Your task to perform on an android device: Show me popular games on the Play Store Image 0: 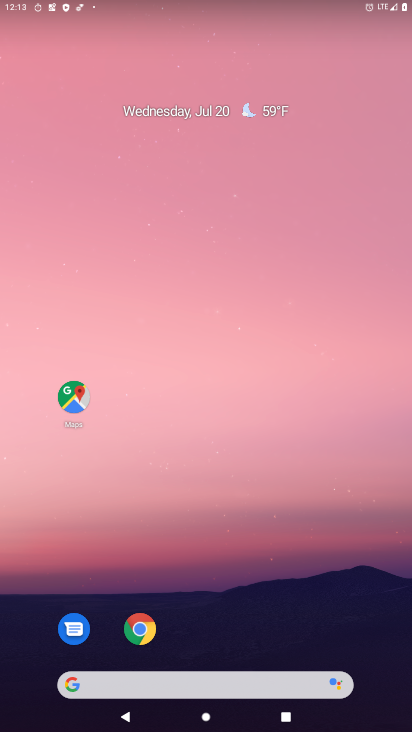
Step 0: drag from (277, 542) to (293, 44)
Your task to perform on an android device: Show me popular games on the Play Store Image 1: 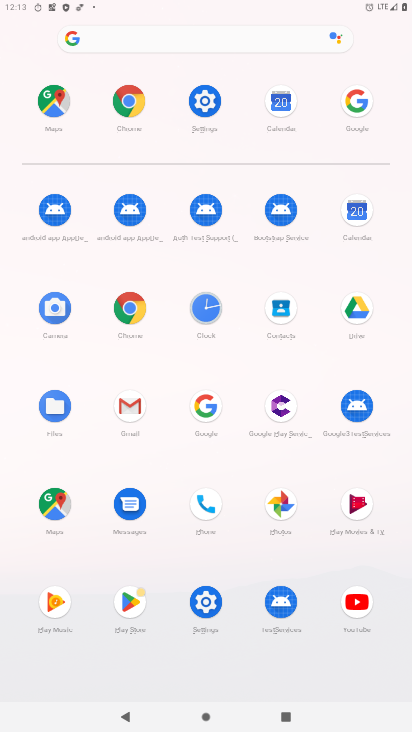
Step 1: click (135, 605)
Your task to perform on an android device: Show me popular games on the Play Store Image 2: 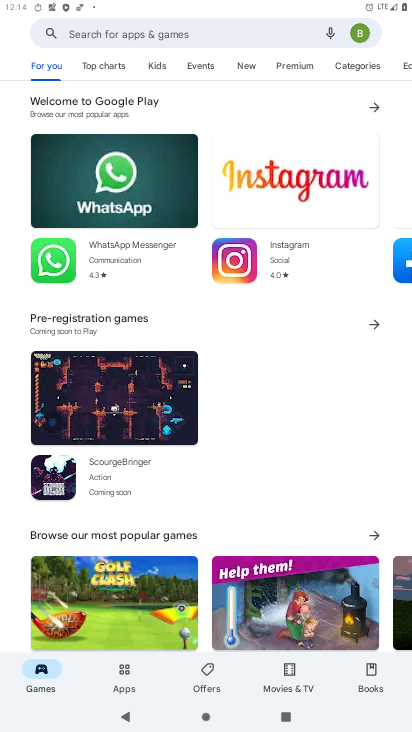
Step 2: click (148, 35)
Your task to perform on an android device: Show me popular games on the Play Store Image 3: 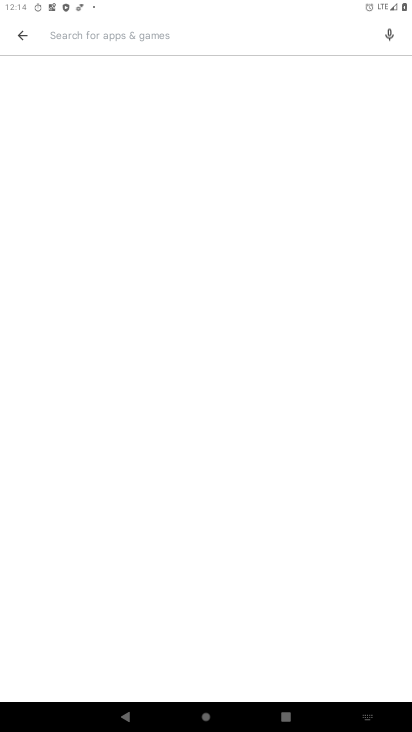
Step 3: type " popular games"
Your task to perform on an android device: Show me popular games on the Play Store Image 4: 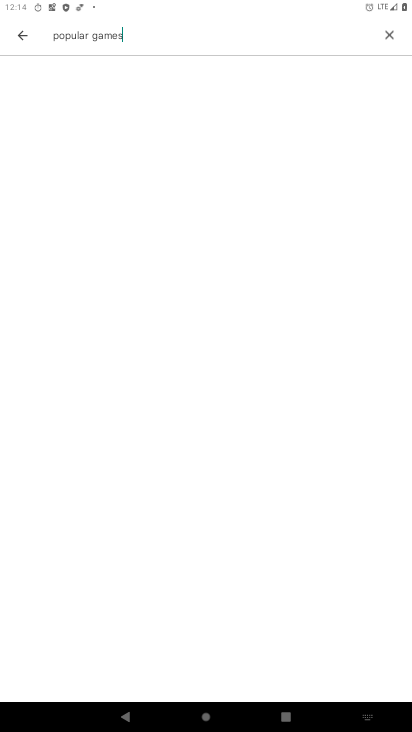
Step 4: press enter
Your task to perform on an android device: Show me popular games on the Play Store Image 5: 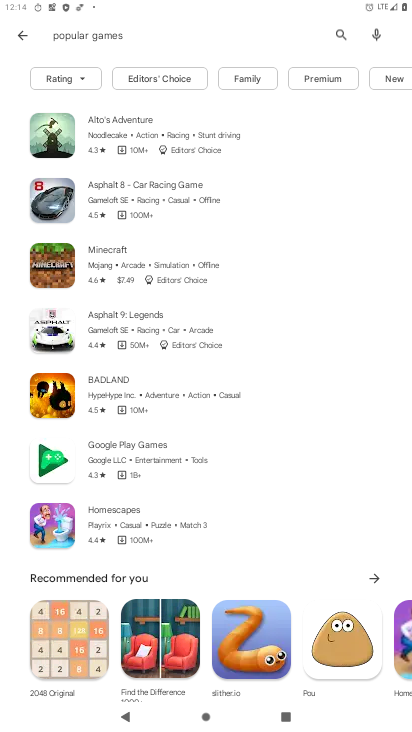
Step 5: task complete